Your task to perform on an android device: check storage Image 0: 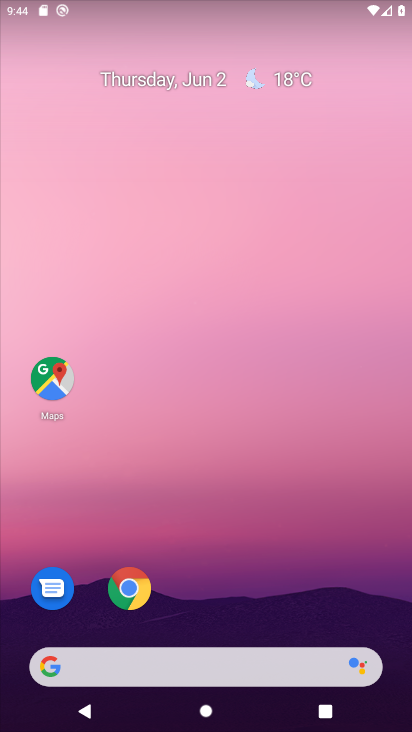
Step 0: drag from (276, 718) to (257, 51)
Your task to perform on an android device: check storage Image 1: 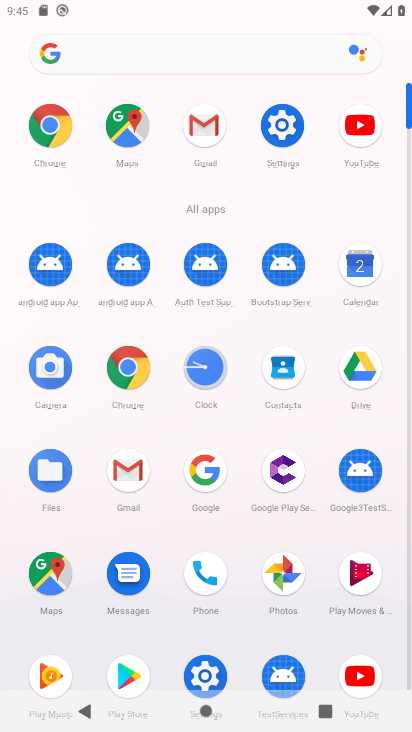
Step 1: click (271, 122)
Your task to perform on an android device: check storage Image 2: 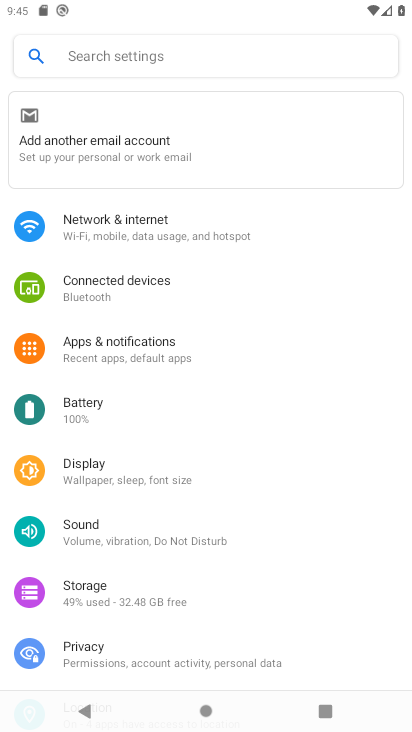
Step 2: drag from (146, 516) to (126, 200)
Your task to perform on an android device: check storage Image 3: 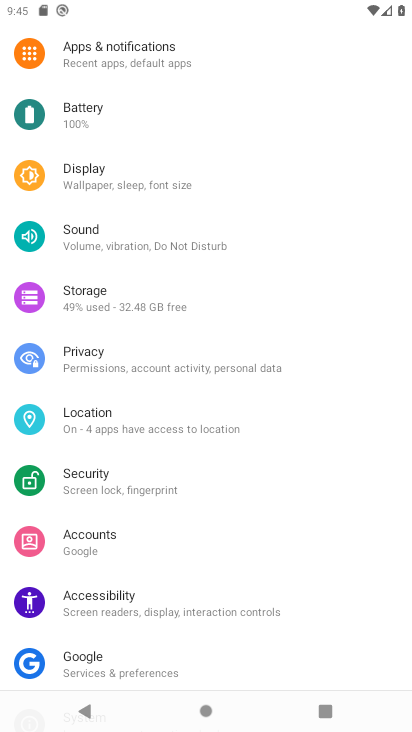
Step 3: drag from (150, 462) to (170, 229)
Your task to perform on an android device: check storage Image 4: 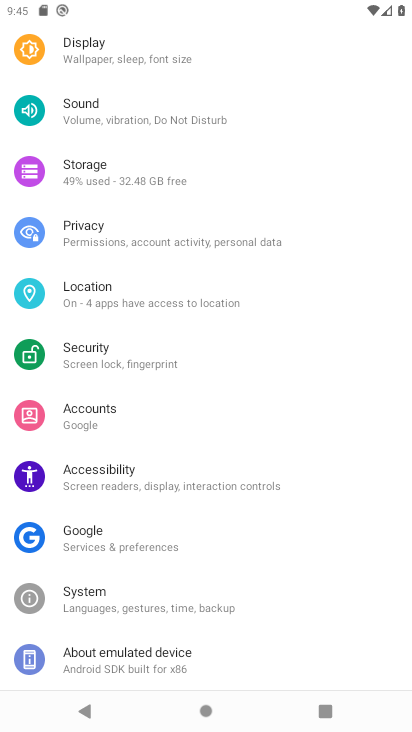
Step 4: click (81, 168)
Your task to perform on an android device: check storage Image 5: 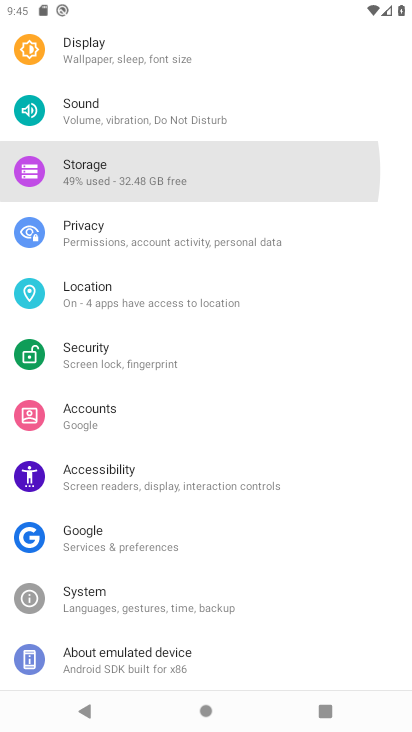
Step 5: click (81, 168)
Your task to perform on an android device: check storage Image 6: 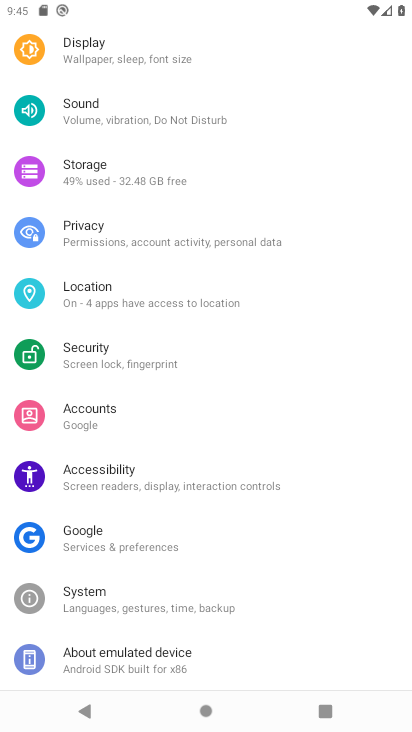
Step 6: click (83, 170)
Your task to perform on an android device: check storage Image 7: 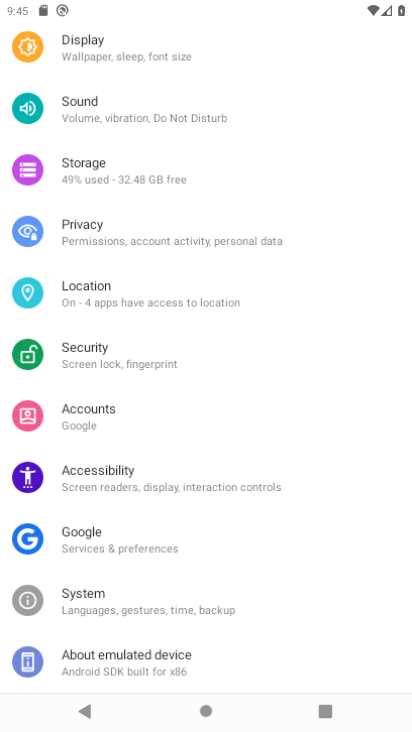
Step 7: click (83, 170)
Your task to perform on an android device: check storage Image 8: 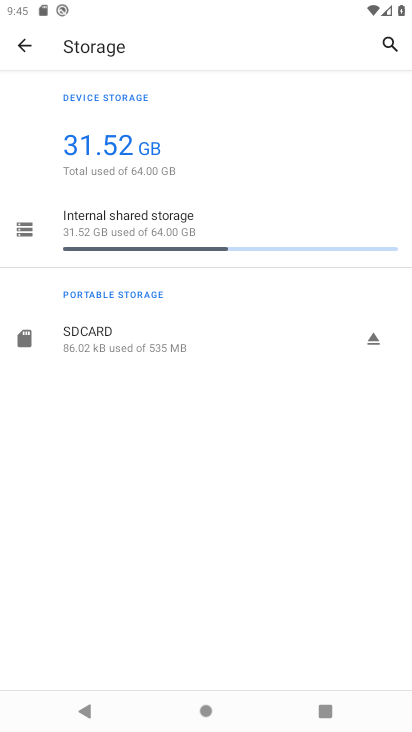
Step 8: task complete